Your task to perform on an android device: turn on javascript in the chrome app Image 0: 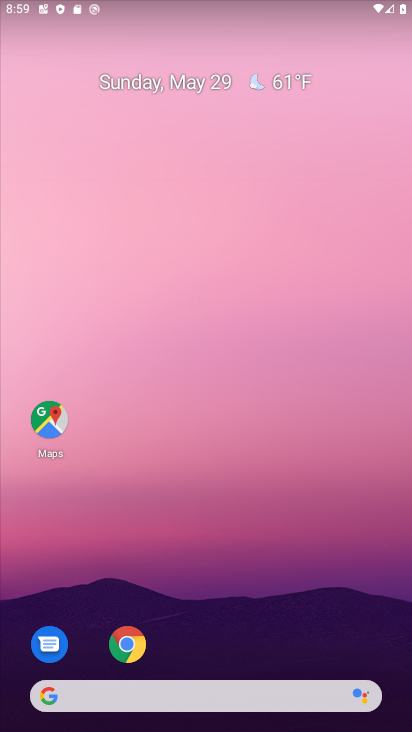
Step 0: click (142, 650)
Your task to perform on an android device: turn on javascript in the chrome app Image 1: 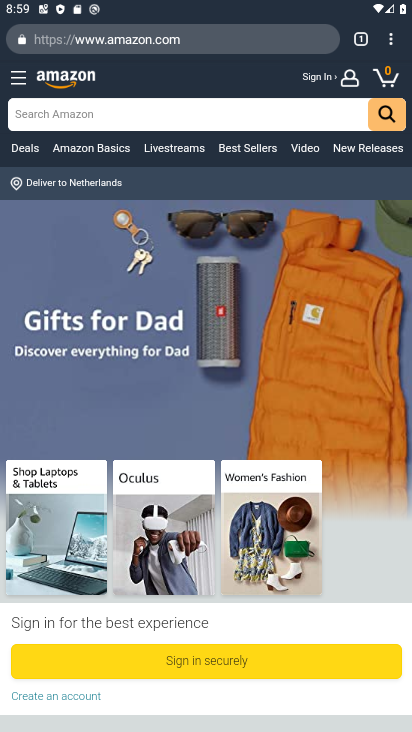
Step 1: drag from (387, 41) to (254, 437)
Your task to perform on an android device: turn on javascript in the chrome app Image 2: 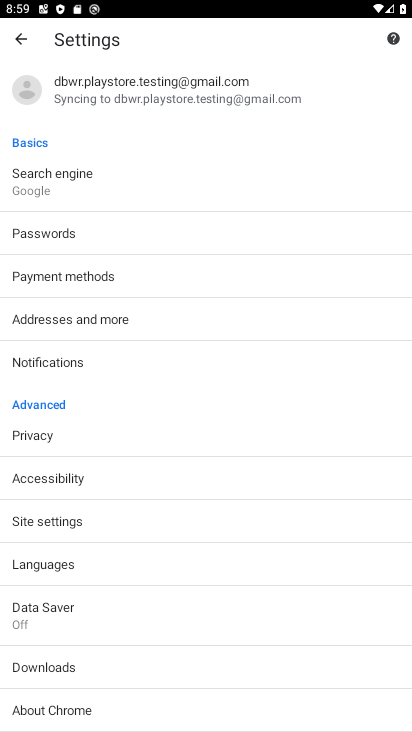
Step 2: click (61, 511)
Your task to perform on an android device: turn on javascript in the chrome app Image 3: 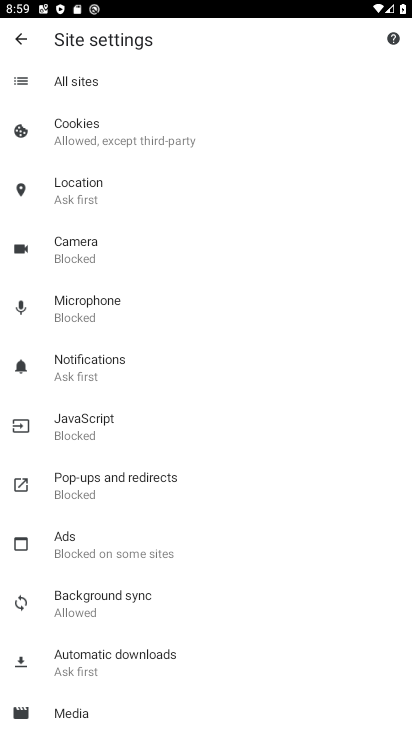
Step 3: click (82, 424)
Your task to perform on an android device: turn on javascript in the chrome app Image 4: 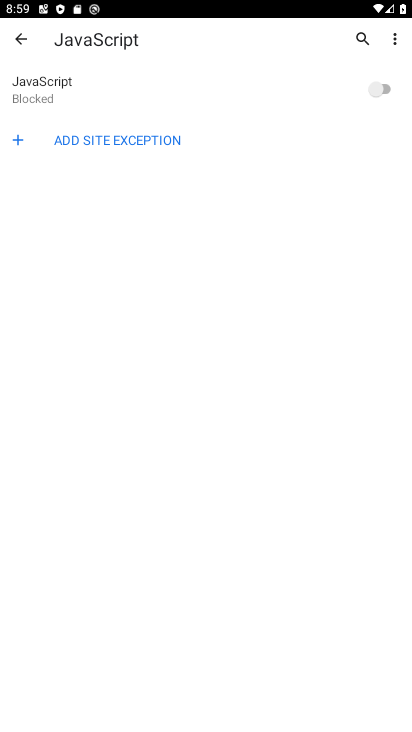
Step 4: click (387, 90)
Your task to perform on an android device: turn on javascript in the chrome app Image 5: 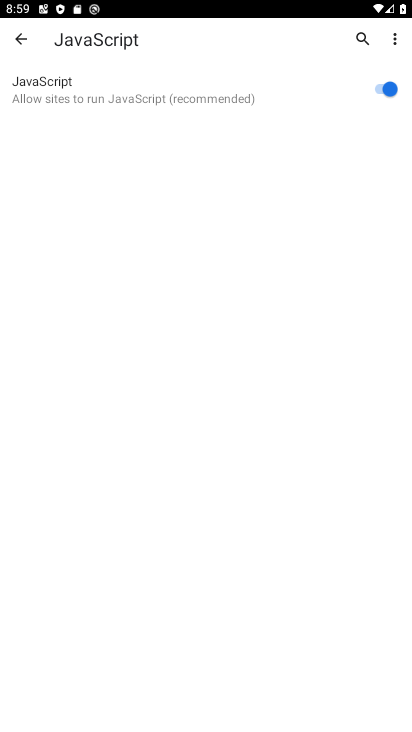
Step 5: task complete